Your task to perform on an android device: Go to accessibility settings Image 0: 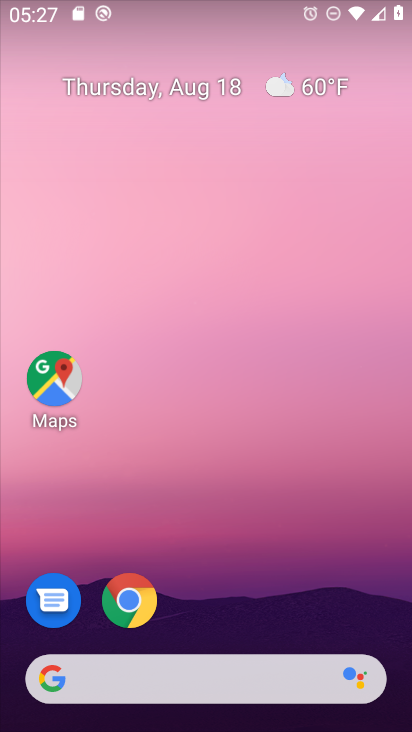
Step 0: press home button
Your task to perform on an android device: Go to accessibility settings Image 1: 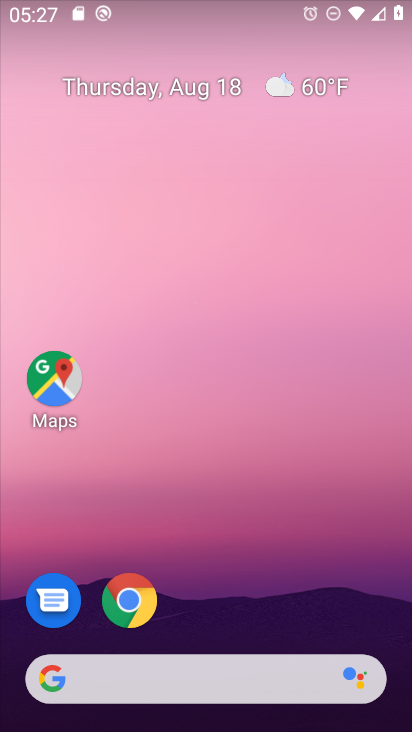
Step 1: drag from (245, 628) to (246, 2)
Your task to perform on an android device: Go to accessibility settings Image 2: 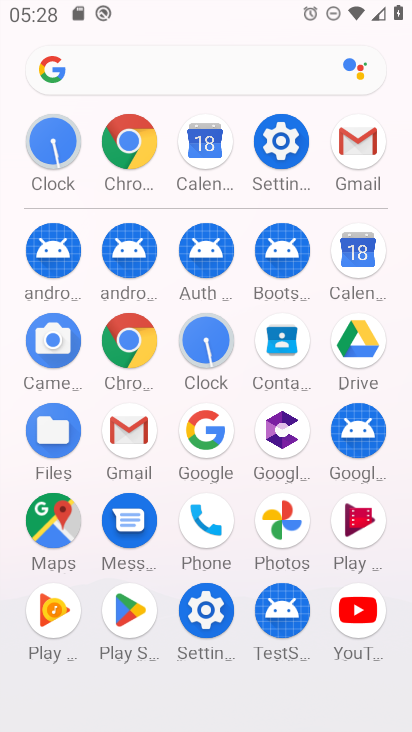
Step 2: click (277, 154)
Your task to perform on an android device: Go to accessibility settings Image 3: 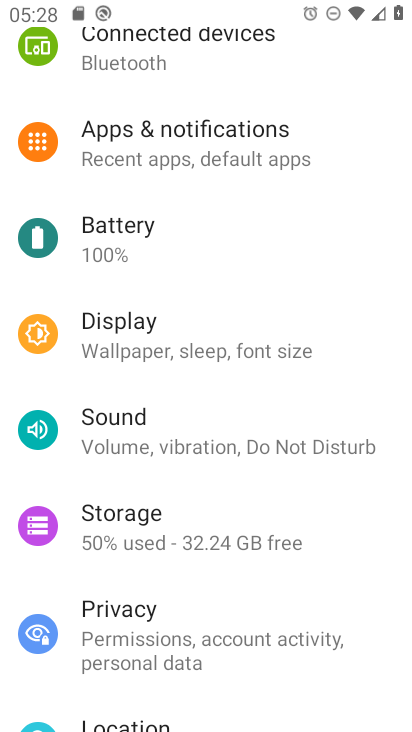
Step 3: drag from (344, 681) to (330, 58)
Your task to perform on an android device: Go to accessibility settings Image 4: 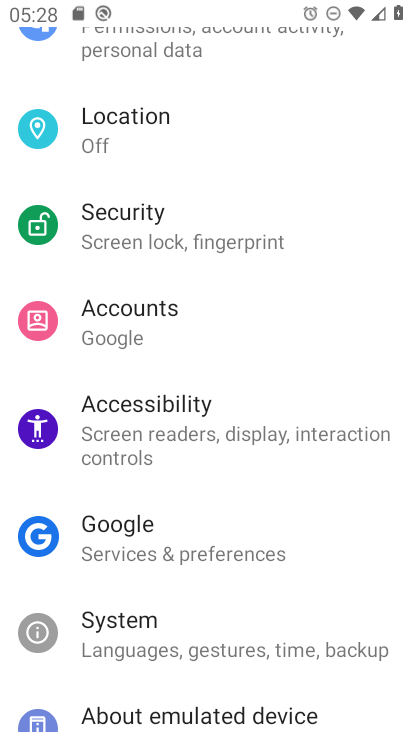
Step 4: click (130, 415)
Your task to perform on an android device: Go to accessibility settings Image 5: 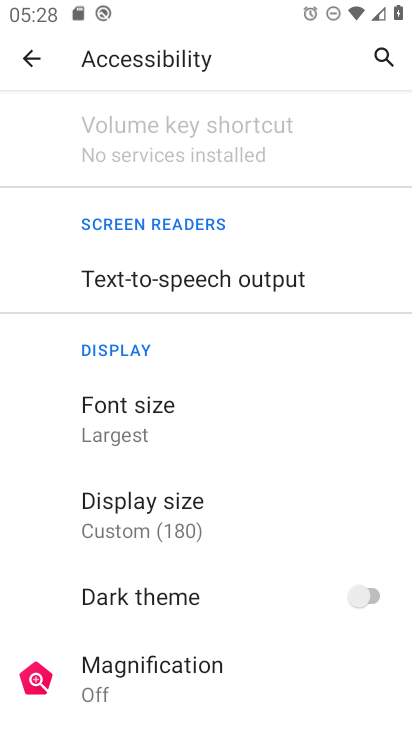
Step 5: task complete